Your task to perform on an android device: turn on showing notifications on the lock screen Image 0: 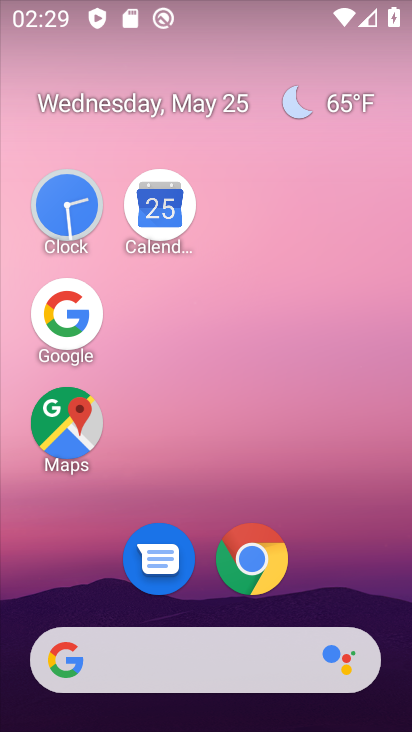
Step 0: drag from (362, 618) to (329, 182)
Your task to perform on an android device: turn on showing notifications on the lock screen Image 1: 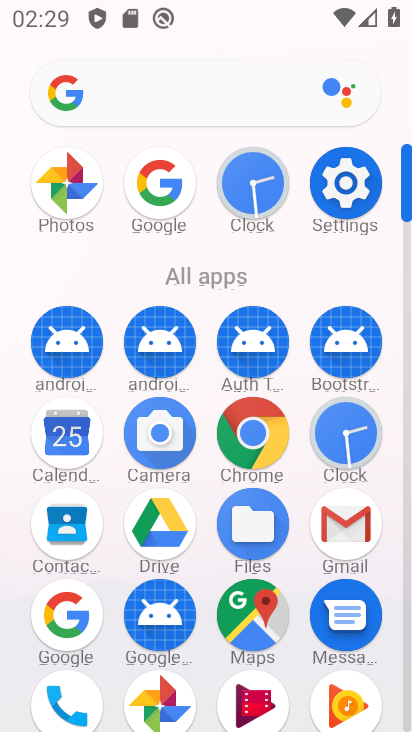
Step 1: drag from (349, 192) to (281, 235)
Your task to perform on an android device: turn on showing notifications on the lock screen Image 2: 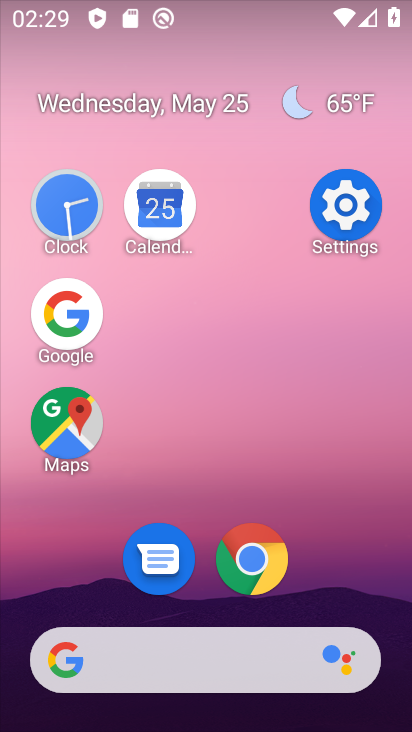
Step 2: click (337, 207)
Your task to perform on an android device: turn on showing notifications on the lock screen Image 3: 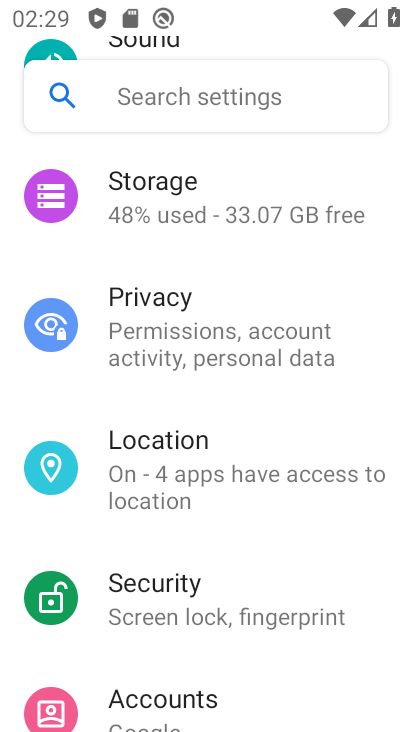
Step 3: drag from (302, 642) to (288, 587)
Your task to perform on an android device: turn on showing notifications on the lock screen Image 4: 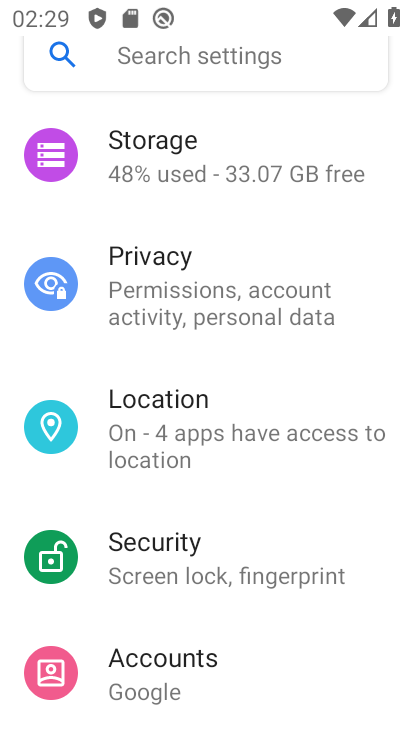
Step 4: drag from (329, 135) to (342, 541)
Your task to perform on an android device: turn on showing notifications on the lock screen Image 5: 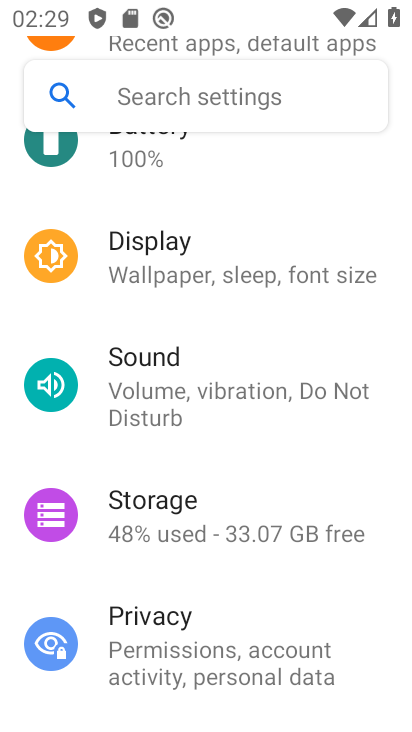
Step 5: drag from (278, 186) to (298, 650)
Your task to perform on an android device: turn on showing notifications on the lock screen Image 6: 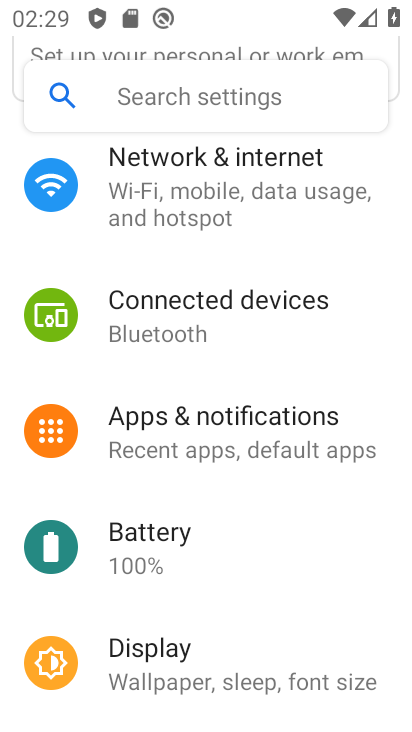
Step 6: click (267, 433)
Your task to perform on an android device: turn on showing notifications on the lock screen Image 7: 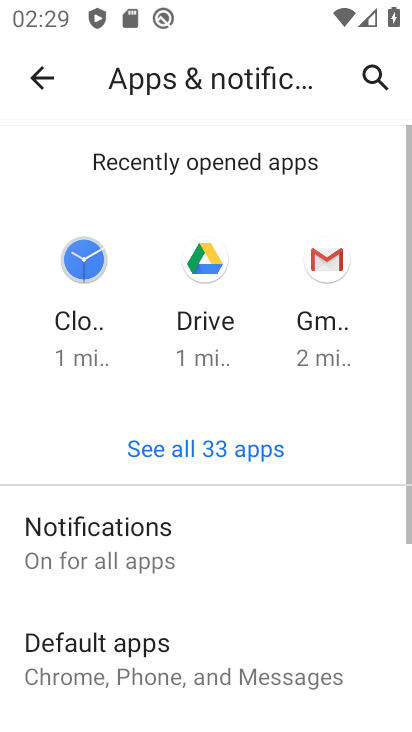
Step 7: click (238, 566)
Your task to perform on an android device: turn on showing notifications on the lock screen Image 8: 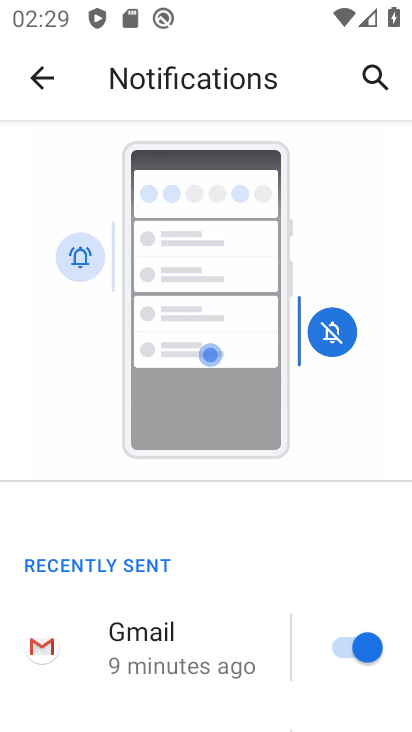
Step 8: click (246, 189)
Your task to perform on an android device: turn on showing notifications on the lock screen Image 9: 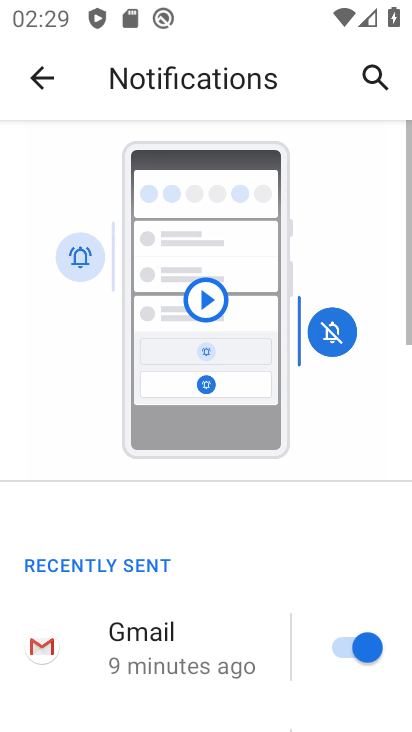
Step 9: drag from (224, 608) to (251, 150)
Your task to perform on an android device: turn on showing notifications on the lock screen Image 10: 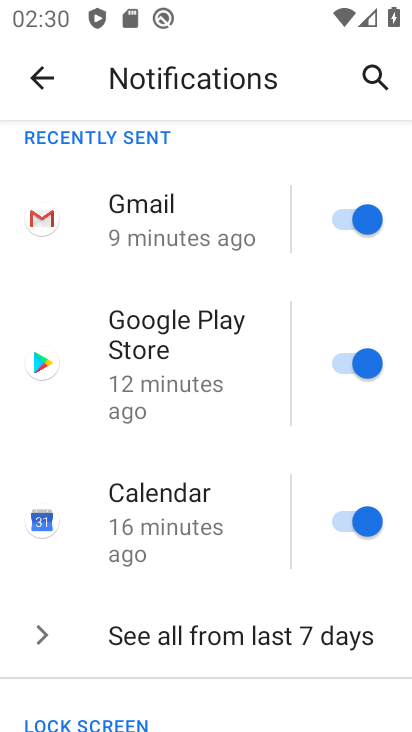
Step 10: drag from (216, 518) to (253, 184)
Your task to perform on an android device: turn on showing notifications on the lock screen Image 11: 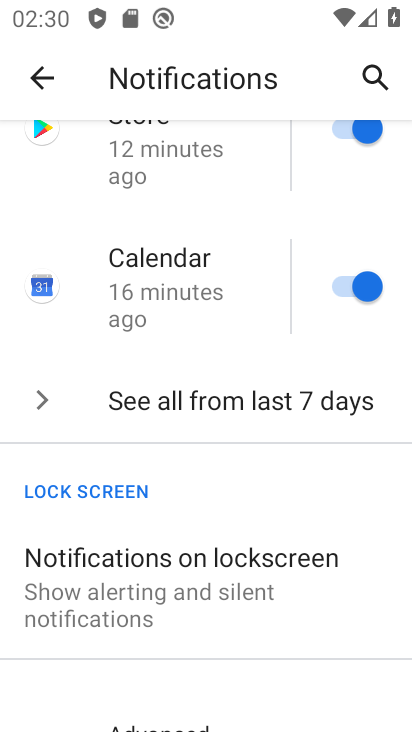
Step 11: click (148, 584)
Your task to perform on an android device: turn on showing notifications on the lock screen Image 12: 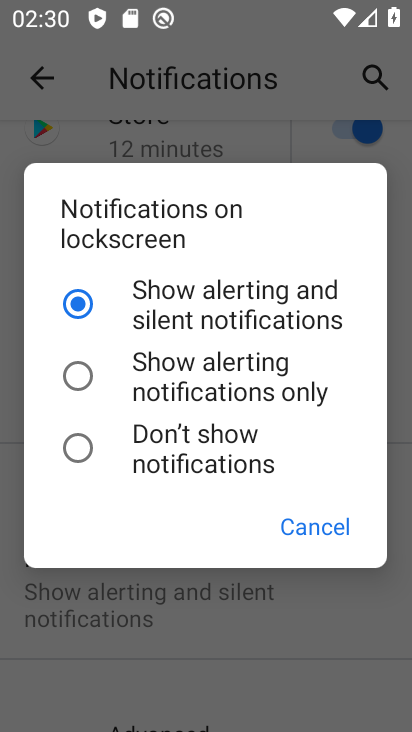
Step 12: task complete